Your task to perform on an android device: all mails in gmail Image 0: 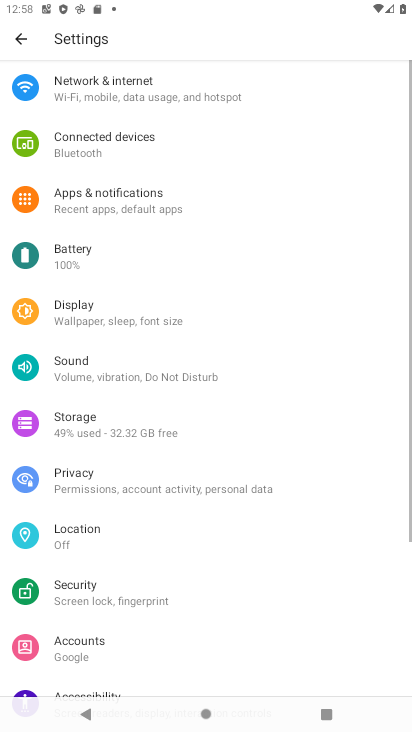
Step 0: press home button
Your task to perform on an android device: all mails in gmail Image 1: 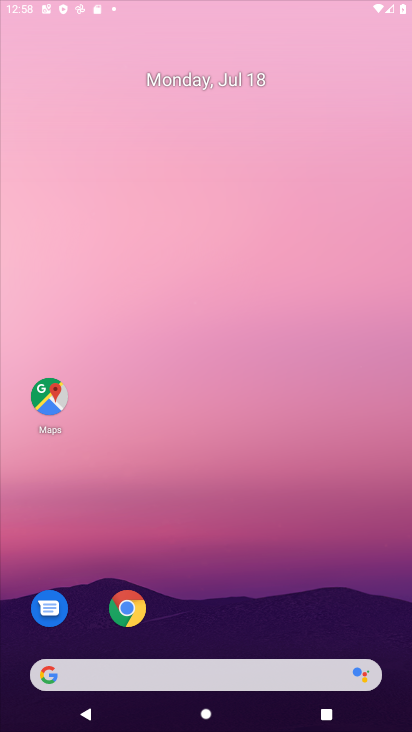
Step 1: drag from (371, 588) to (180, 84)
Your task to perform on an android device: all mails in gmail Image 2: 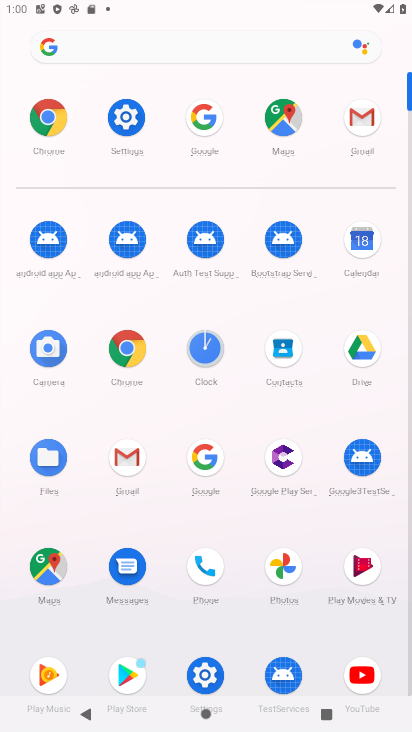
Step 2: click (139, 467)
Your task to perform on an android device: all mails in gmail Image 3: 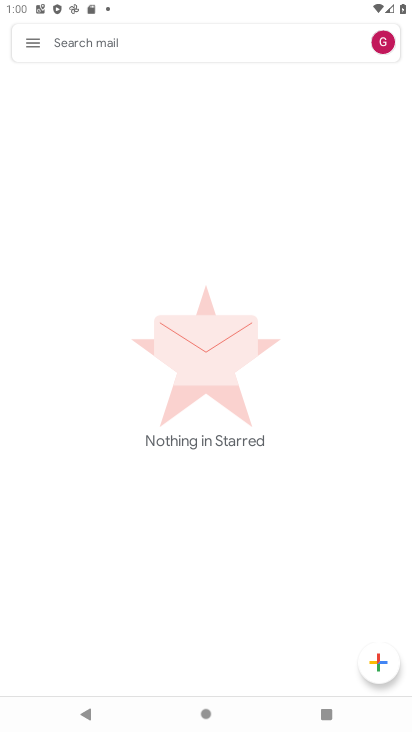
Step 3: click (23, 41)
Your task to perform on an android device: all mails in gmail Image 4: 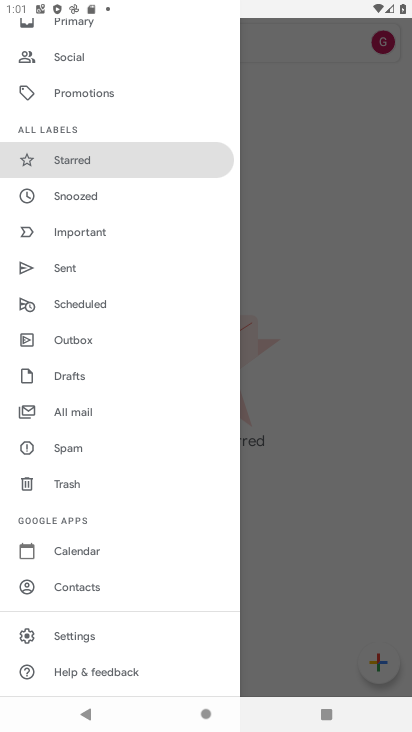
Step 4: click (86, 416)
Your task to perform on an android device: all mails in gmail Image 5: 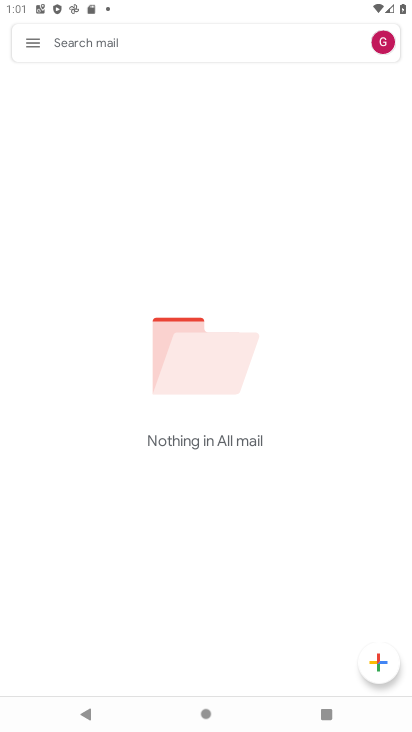
Step 5: task complete